Your task to perform on an android device: open wifi settings Image 0: 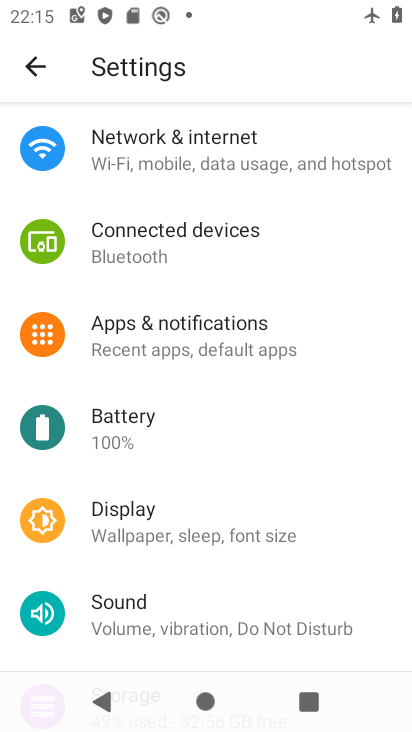
Step 0: press home button
Your task to perform on an android device: open wifi settings Image 1: 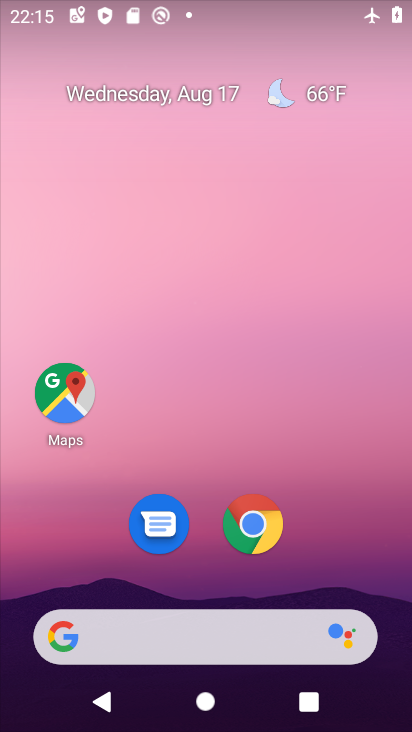
Step 1: drag from (312, 542) to (323, 11)
Your task to perform on an android device: open wifi settings Image 2: 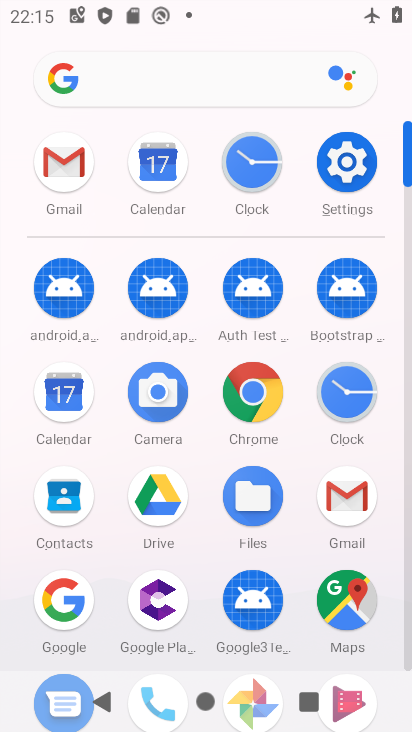
Step 2: click (355, 163)
Your task to perform on an android device: open wifi settings Image 3: 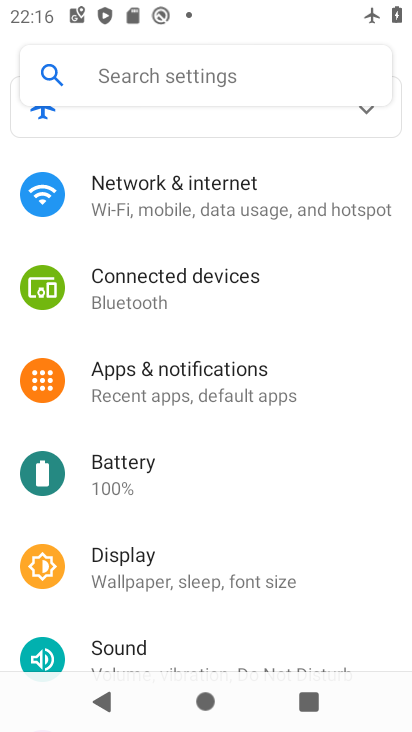
Step 3: click (274, 202)
Your task to perform on an android device: open wifi settings Image 4: 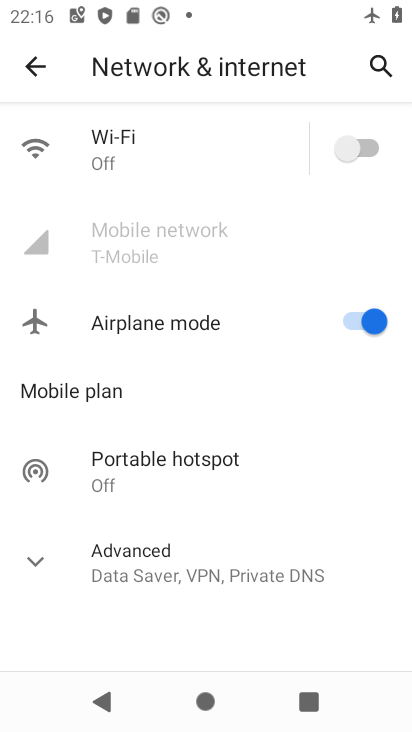
Step 4: click (355, 146)
Your task to perform on an android device: open wifi settings Image 5: 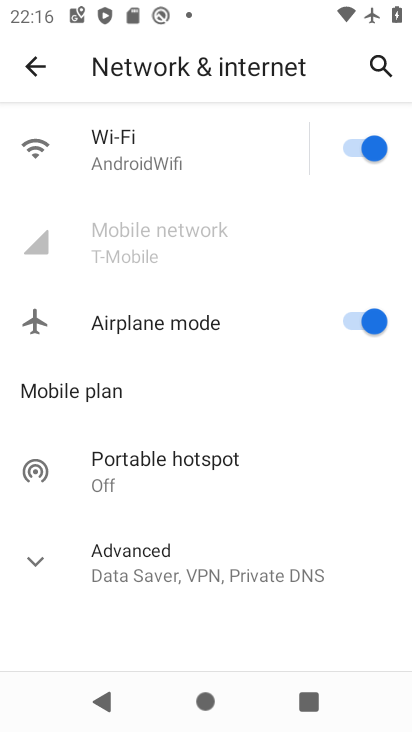
Step 5: click (364, 145)
Your task to perform on an android device: open wifi settings Image 6: 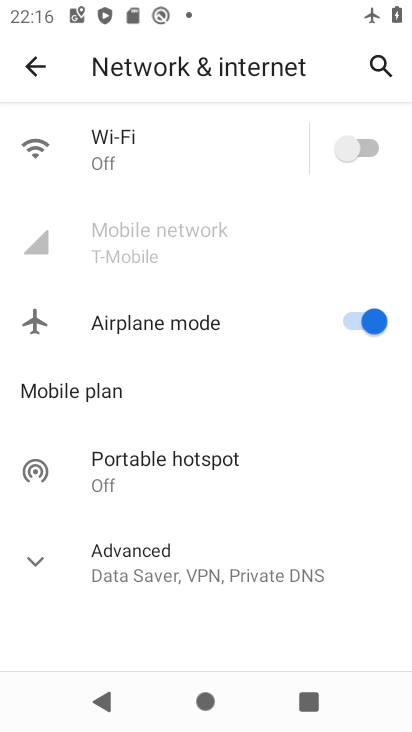
Step 6: click (142, 140)
Your task to perform on an android device: open wifi settings Image 7: 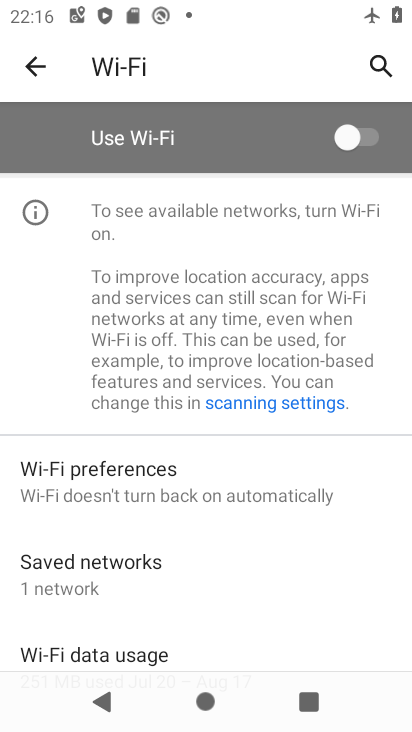
Step 7: task complete